Your task to perform on an android device: empty trash in the gmail app Image 0: 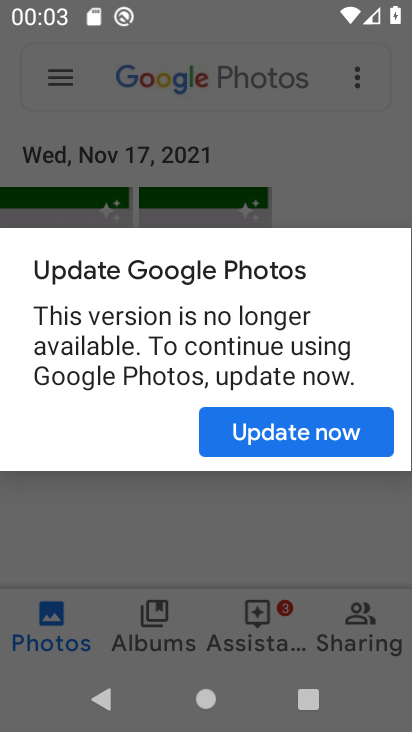
Step 0: press home button
Your task to perform on an android device: empty trash in the gmail app Image 1: 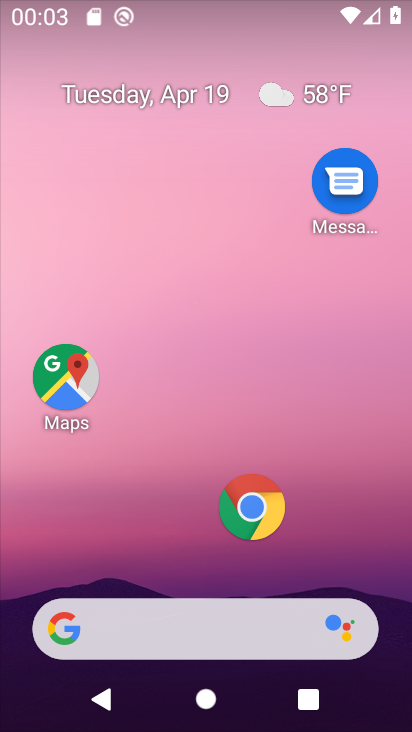
Step 1: drag from (154, 526) to (160, 11)
Your task to perform on an android device: empty trash in the gmail app Image 2: 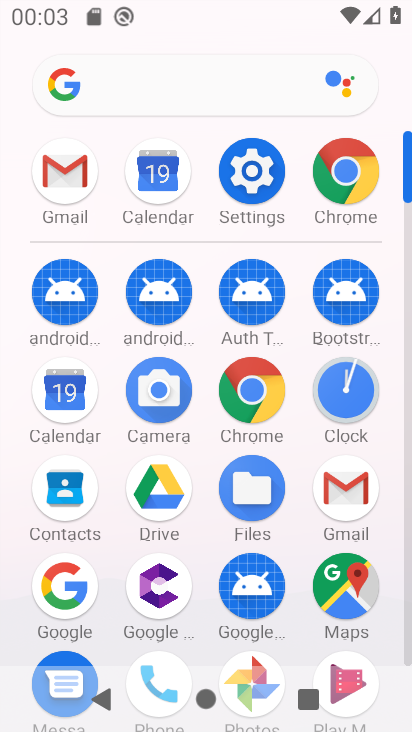
Step 2: click (76, 184)
Your task to perform on an android device: empty trash in the gmail app Image 3: 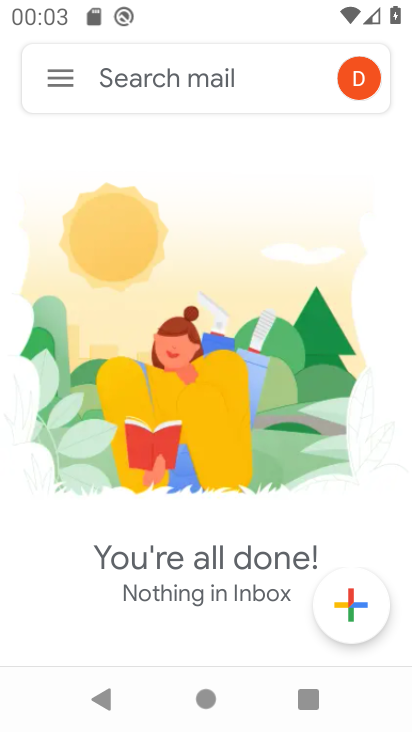
Step 3: click (60, 87)
Your task to perform on an android device: empty trash in the gmail app Image 4: 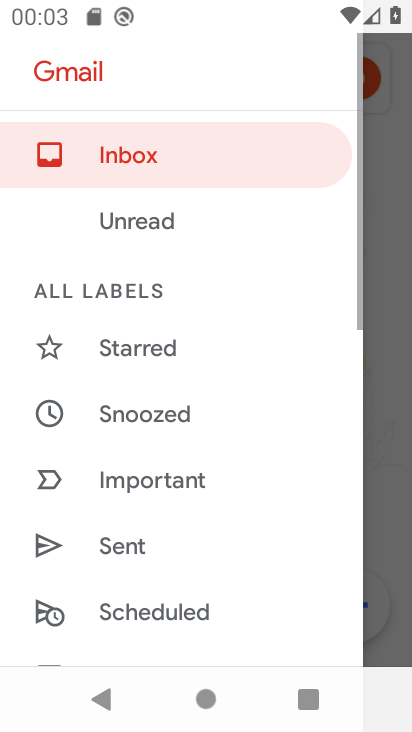
Step 4: drag from (143, 496) to (220, 72)
Your task to perform on an android device: empty trash in the gmail app Image 5: 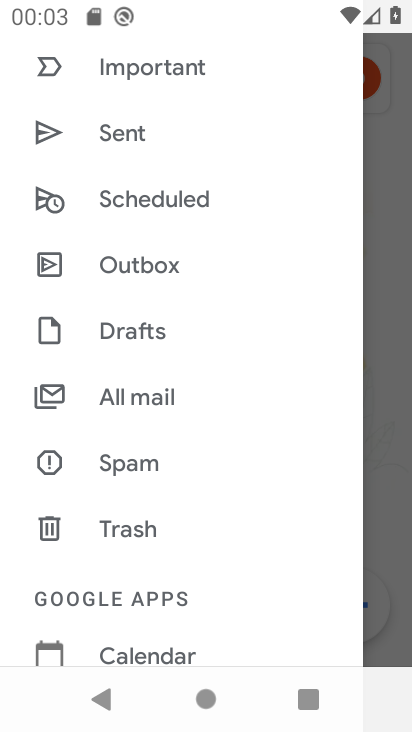
Step 5: click (117, 527)
Your task to perform on an android device: empty trash in the gmail app Image 6: 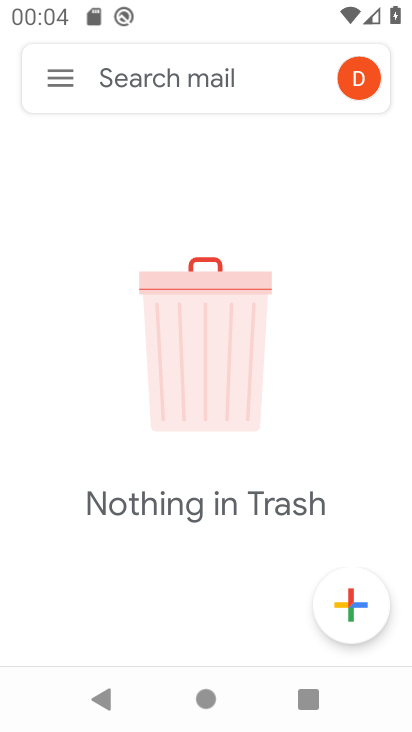
Step 6: task complete